Your task to perform on an android device: change your default location settings in chrome Image 0: 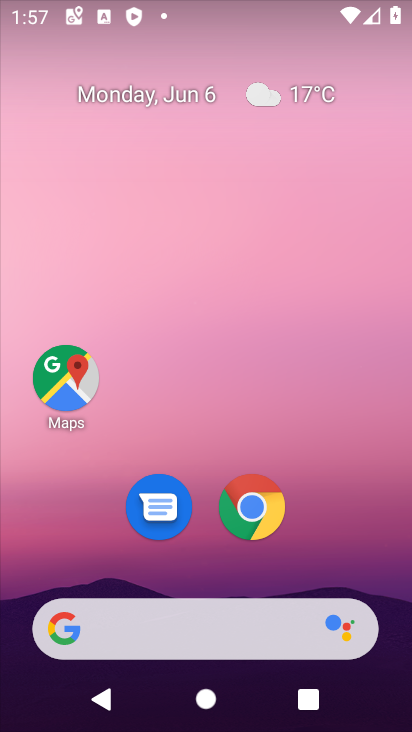
Step 0: click (245, 498)
Your task to perform on an android device: change your default location settings in chrome Image 1: 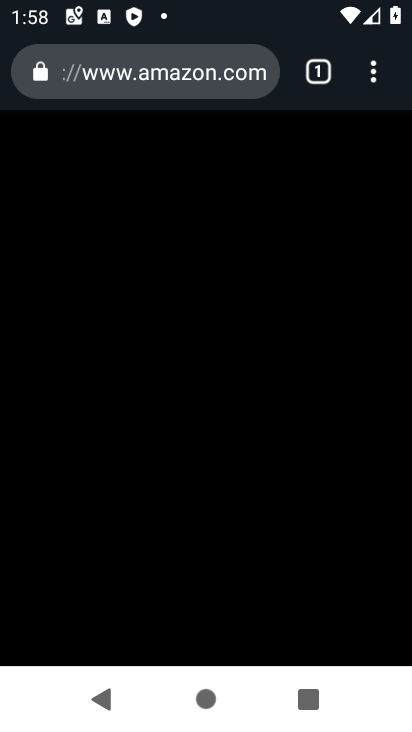
Step 1: click (373, 81)
Your task to perform on an android device: change your default location settings in chrome Image 2: 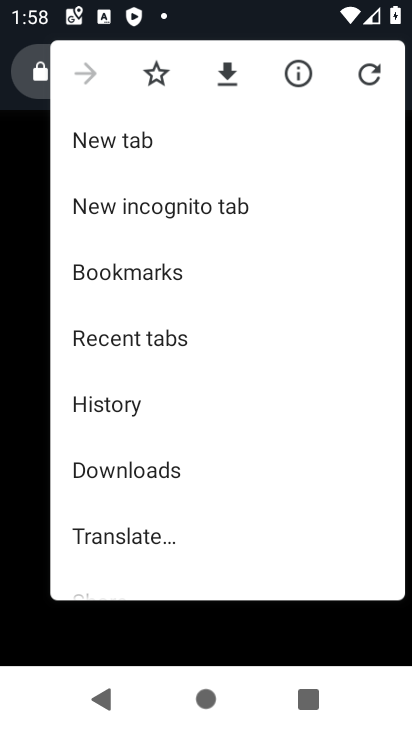
Step 2: drag from (249, 408) to (280, 122)
Your task to perform on an android device: change your default location settings in chrome Image 3: 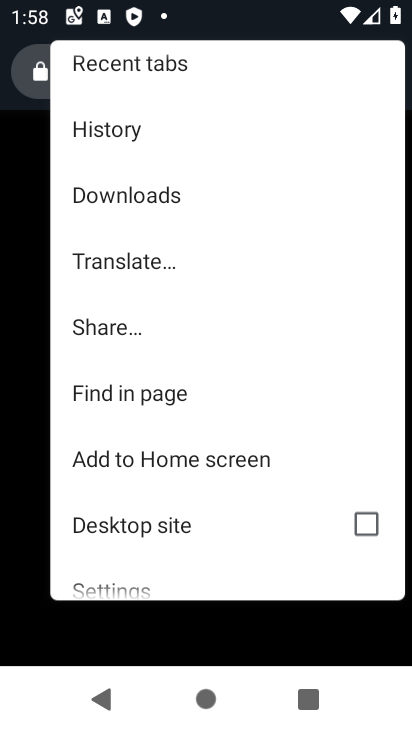
Step 3: drag from (229, 386) to (262, 169)
Your task to perform on an android device: change your default location settings in chrome Image 4: 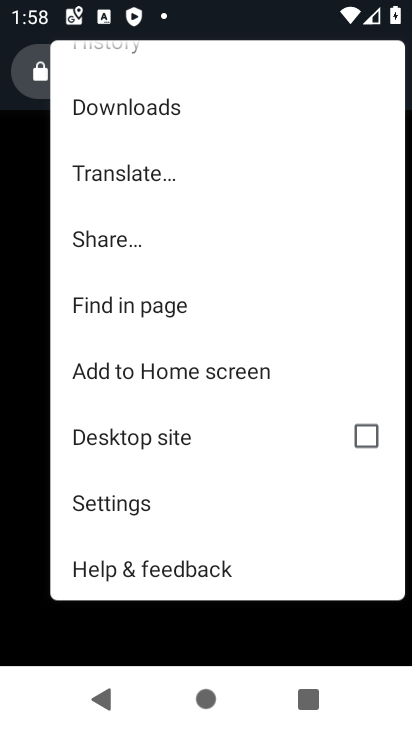
Step 4: click (184, 495)
Your task to perform on an android device: change your default location settings in chrome Image 5: 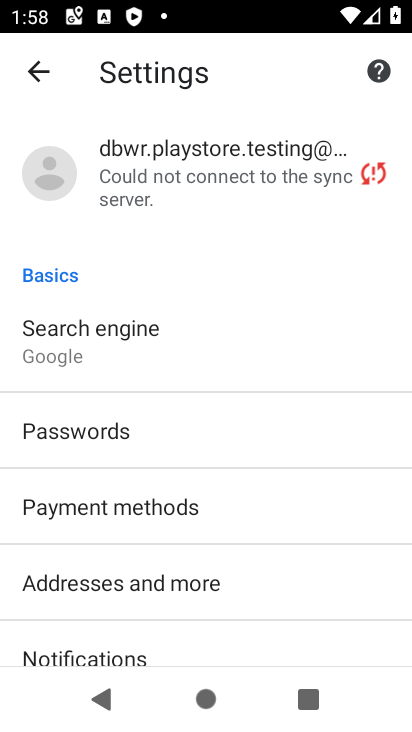
Step 5: drag from (263, 530) to (309, 201)
Your task to perform on an android device: change your default location settings in chrome Image 6: 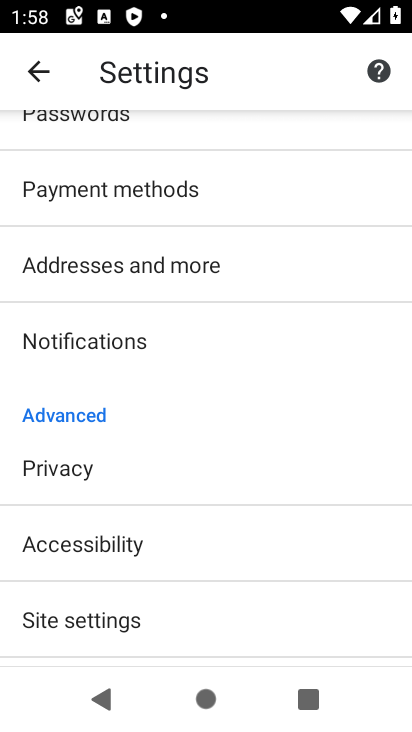
Step 6: click (189, 617)
Your task to perform on an android device: change your default location settings in chrome Image 7: 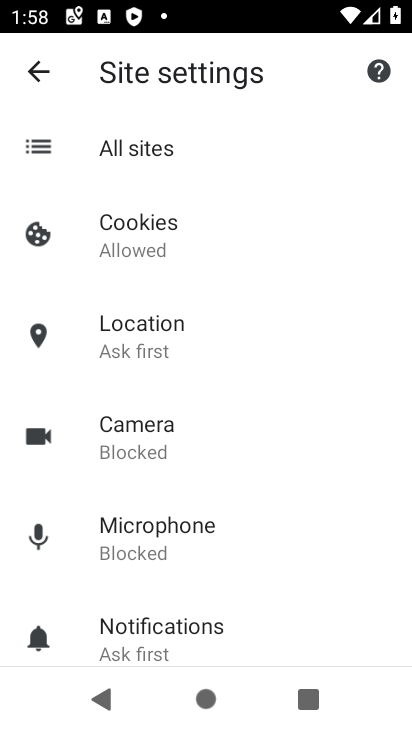
Step 7: click (170, 328)
Your task to perform on an android device: change your default location settings in chrome Image 8: 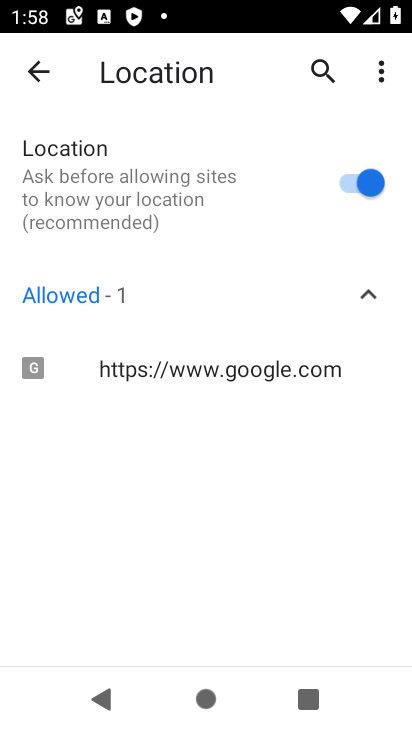
Step 8: click (355, 173)
Your task to perform on an android device: change your default location settings in chrome Image 9: 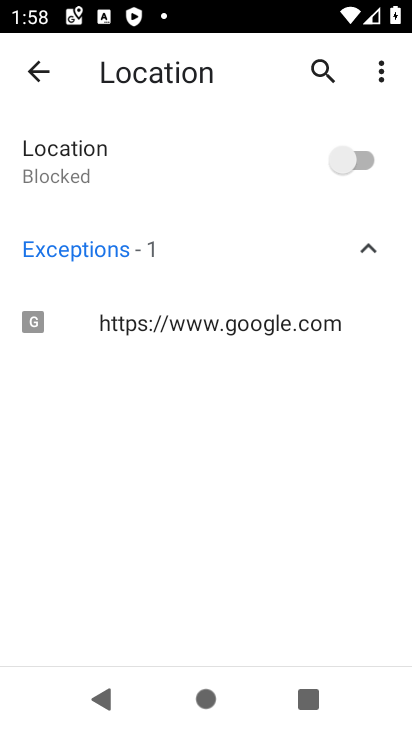
Step 9: task complete